Your task to perform on an android device: Open Google Image 0: 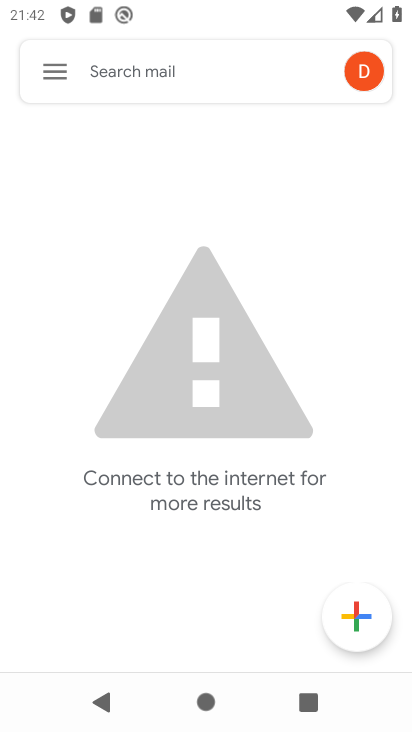
Step 0: press home button
Your task to perform on an android device: Open Google Image 1: 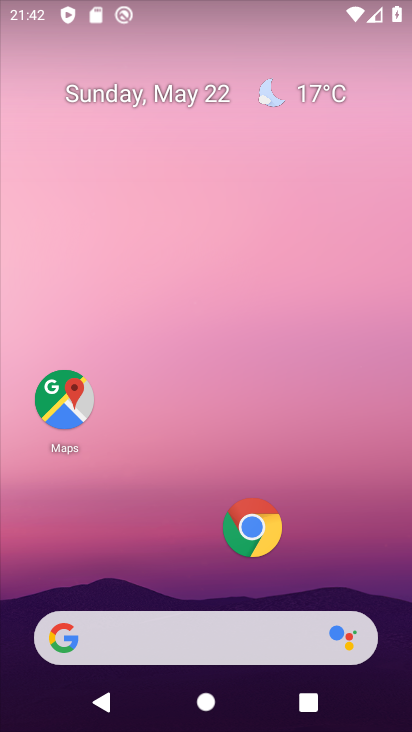
Step 1: click (70, 638)
Your task to perform on an android device: Open Google Image 2: 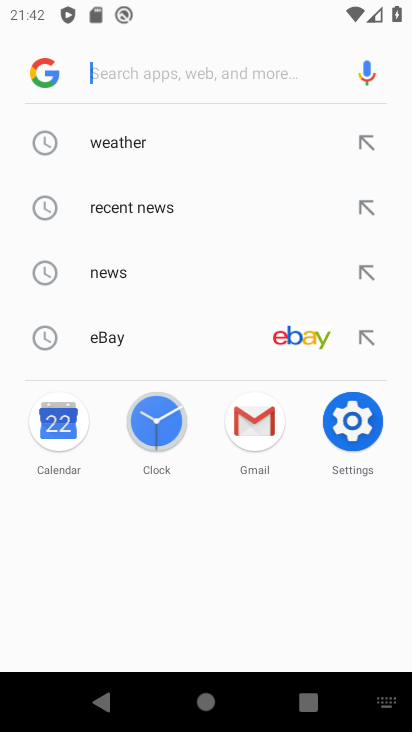
Step 2: task complete